Your task to perform on an android device: Go to Google maps Image 0: 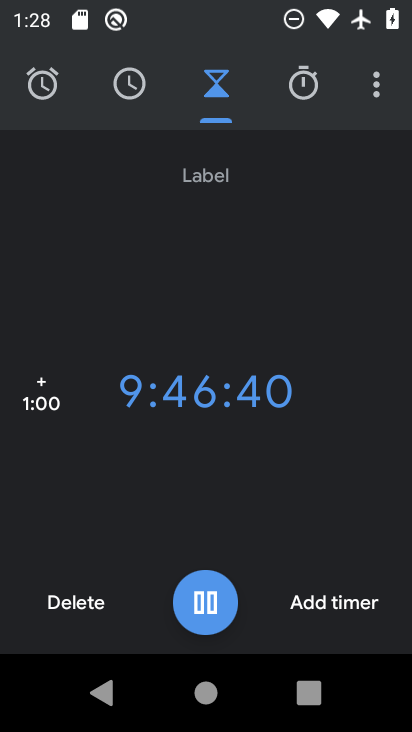
Step 0: press home button
Your task to perform on an android device: Go to Google maps Image 1: 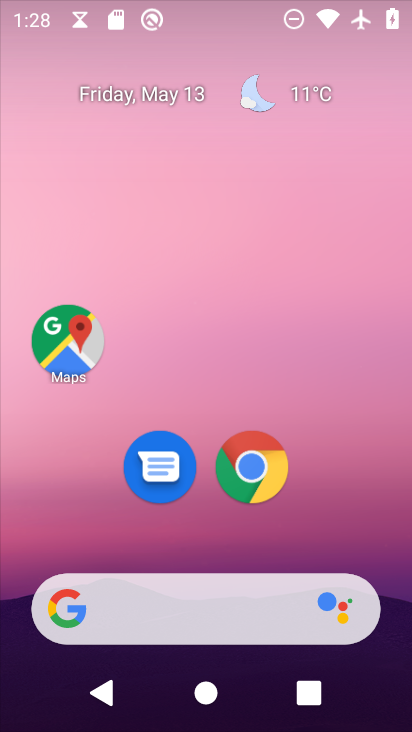
Step 1: click (59, 353)
Your task to perform on an android device: Go to Google maps Image 2: 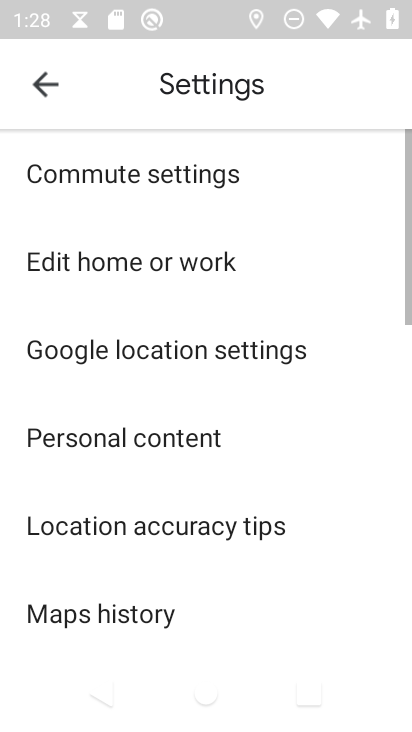
Step 2: click (40, 77)
Your task to perform on an android device: Go to Google maps Image 3: 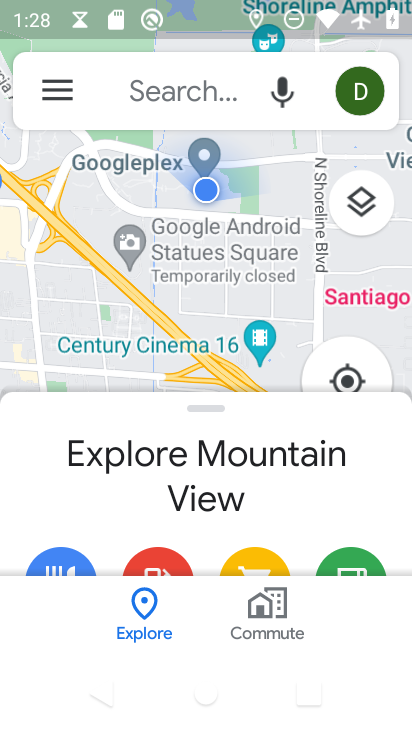
Step 3: task complete